Your task to perform on an android device: open device folders in google photos Image 0: 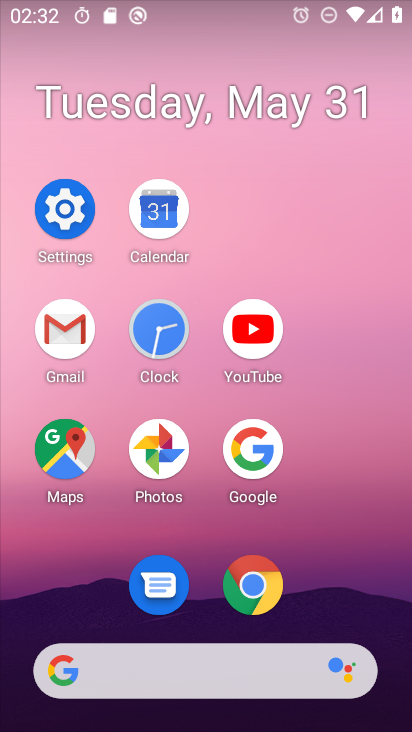
Step 0: click (169, 454)
Your task to perform on an android device: open device folders in google photos Image 1: 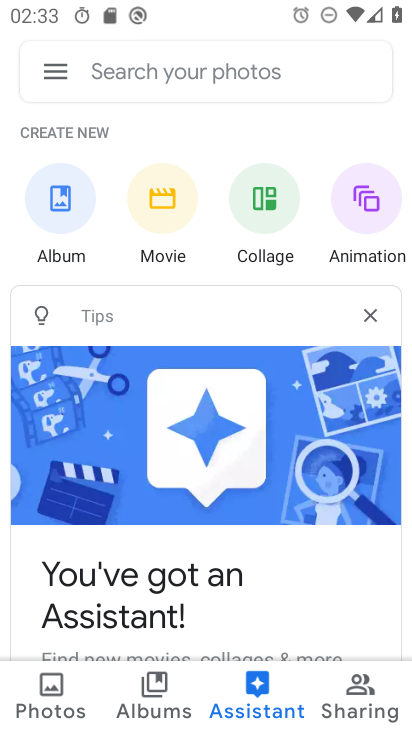
Step 1: click (57, 83)
Your task to perform on an android device: open device folders in google photos Image 2: 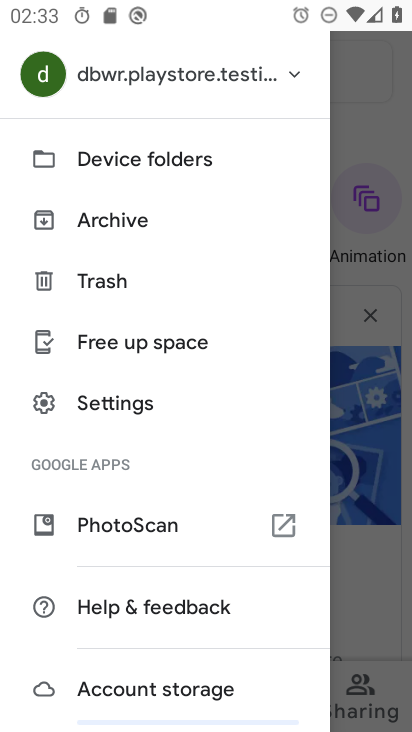
Step 2: click (144, 158)
Your task to perform on an android device: open device folders in google photos Image 3: 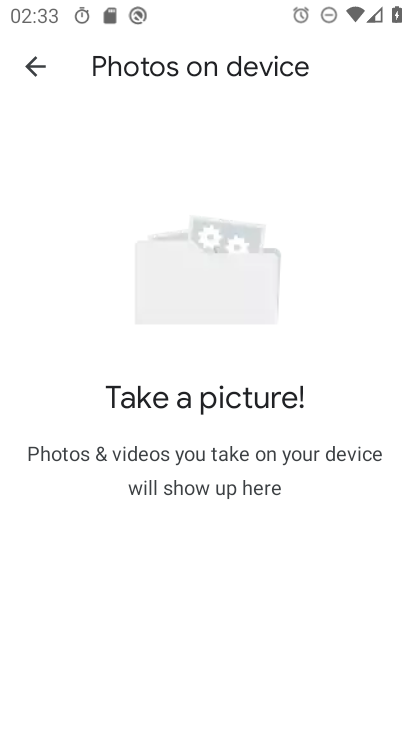
Step 3: task complete